Your task to perform on an android device: star an email in the gmail app Image 0: 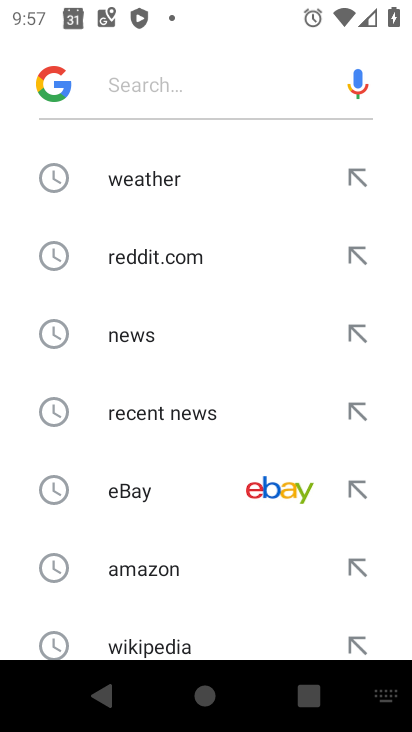
Step 0: press home button
Your task to perform on an android device: star an email in the gmail app Image 1: 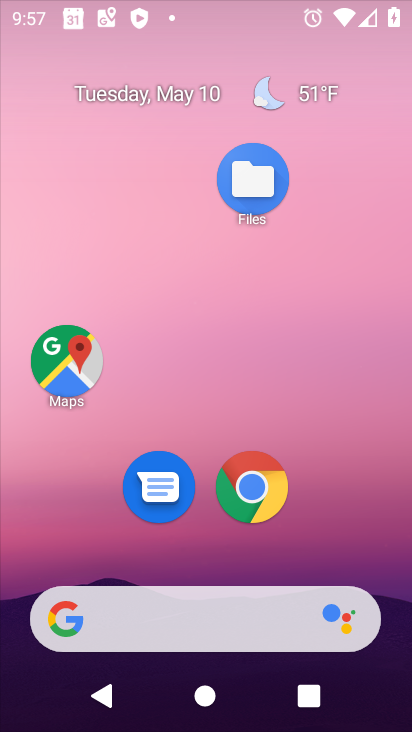
Step 1: drag from (207, 542) to (241, 58)
Your task to perform on an android device: star an email in the gmail app Image 2: 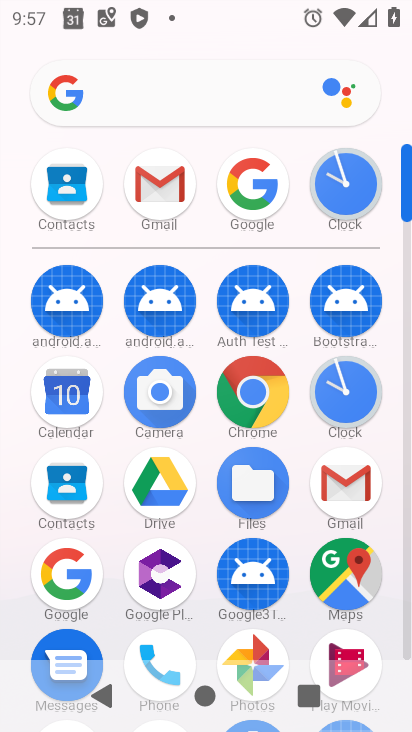
Step 2: click (159, 188)
Your task to perform on an android device: star an email in the gmail app Image 3: 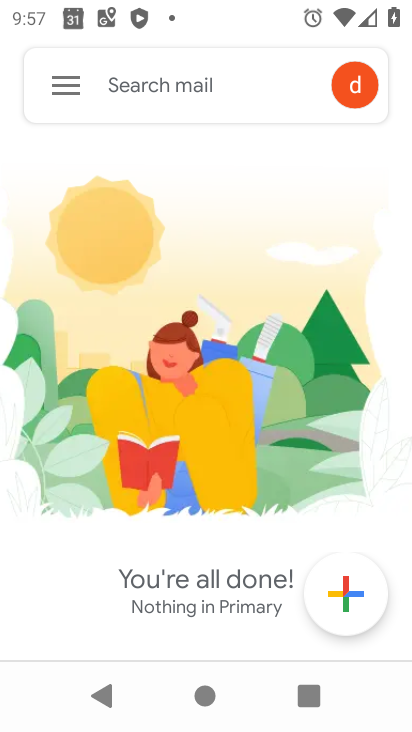
Step 3: click (76, 79)
Your task to perform on an android device: star an email in the gmail app Image 4: 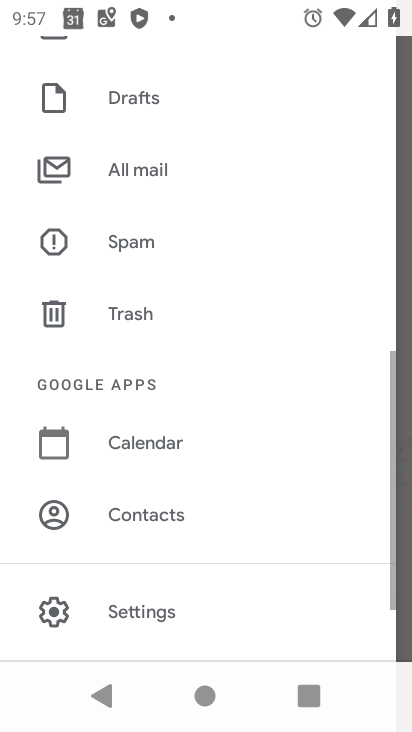
Step 4: click (150, 151)
Your task to perform on an android device: star an email in the gmail app Image 5: 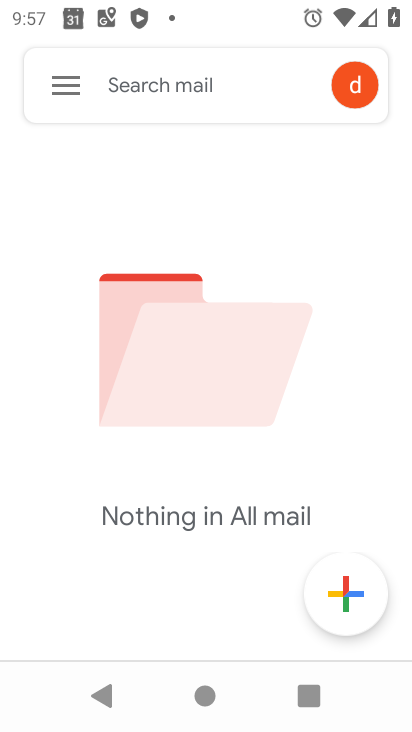
Step 5: task complete